Your task to perform on an android device: Open the calendar app, open the side menu, and click the "Day" option Image 0: 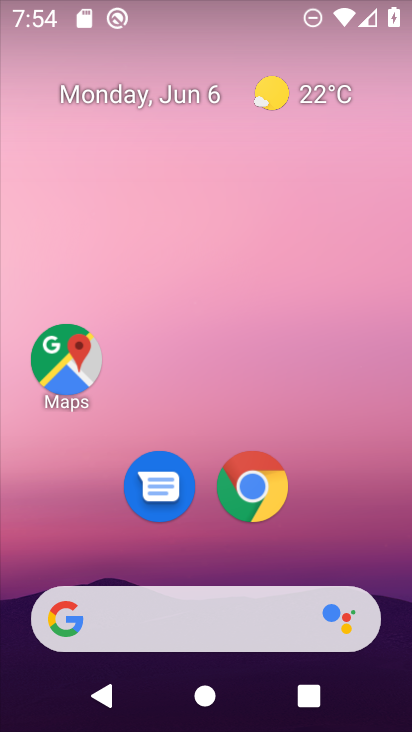
Step 0: drag from (398, 621) to (287, 60)
Your task to perform on an android device: Open the calendar app, open the side menu, and click the "Day" option Image 1: 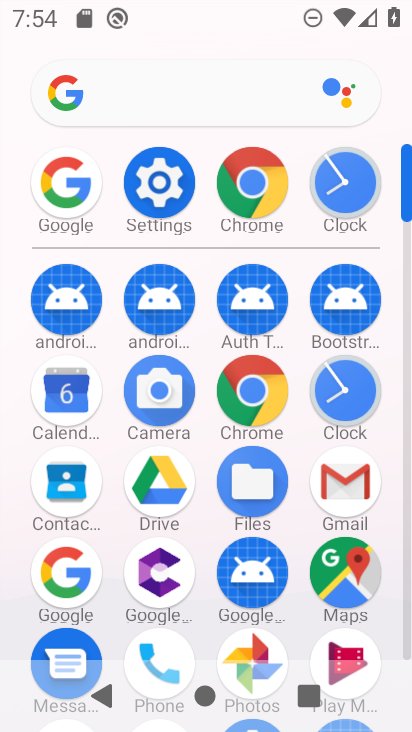
Step 1: click (91, 379)
Your task to perform on an android device: Open the calendar app, open the side menu, and click the "Day" option Image 2: 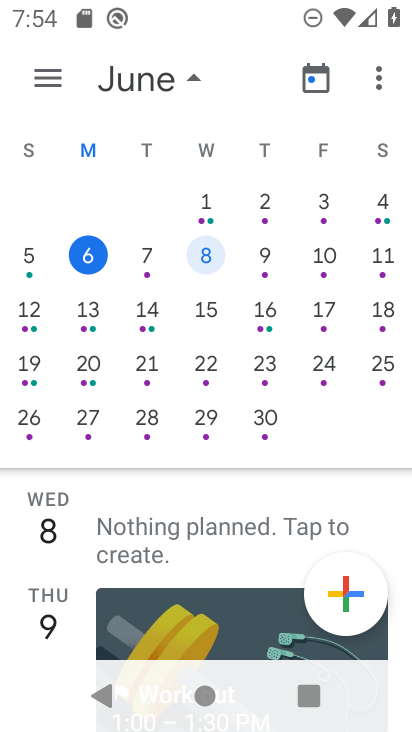
Step 2: click (36, 59)
Your task to perform on an android device: Open the calendar app, open the side menu, and click the "Day" option Image 3: 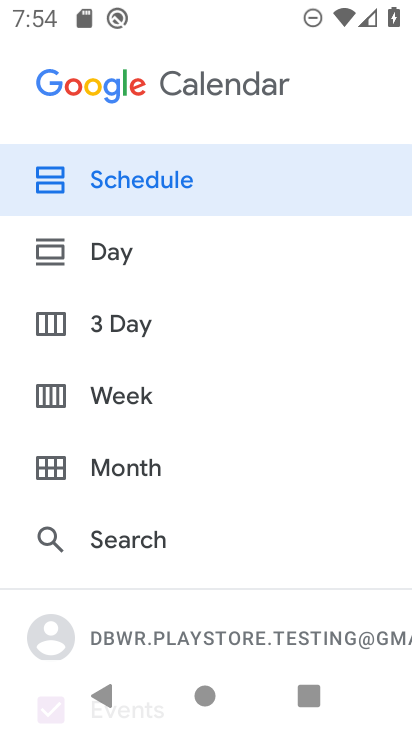
Step 3: click (138, 264)
Your task to perform on an android device: Open the calendar app, open the side menu, and click the "Day" option Image 4: 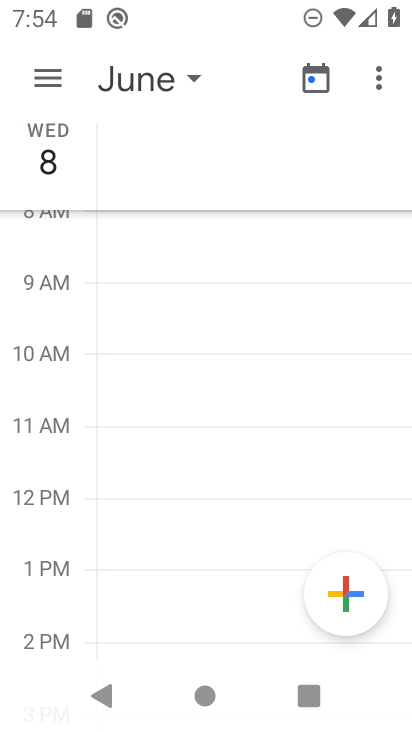
Step 4: task complete